Your task to perform on an android device: turn on airplane mode Image 0: 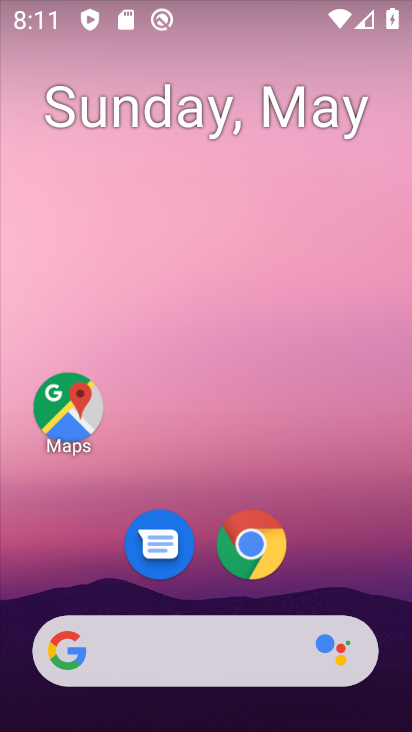
Step 0: drag from (330, 554) to (260, 14)
Your task to perform on an android device: turn on airplane mode Image 1: 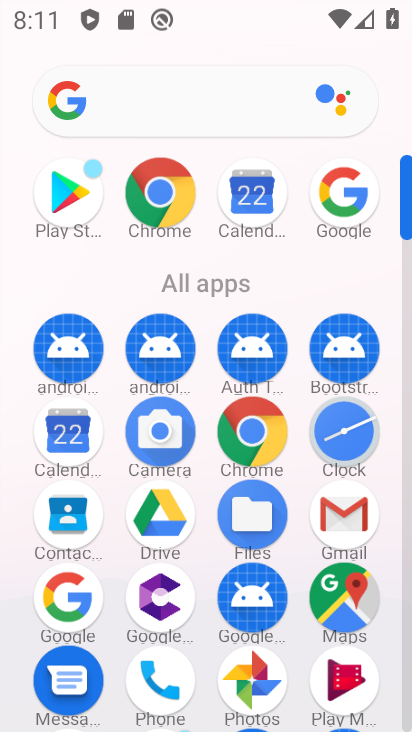
Step 1: drag from (4, 523) to (19, 176)
Your task to perform on an android device: turn on airplane mode Image 2: 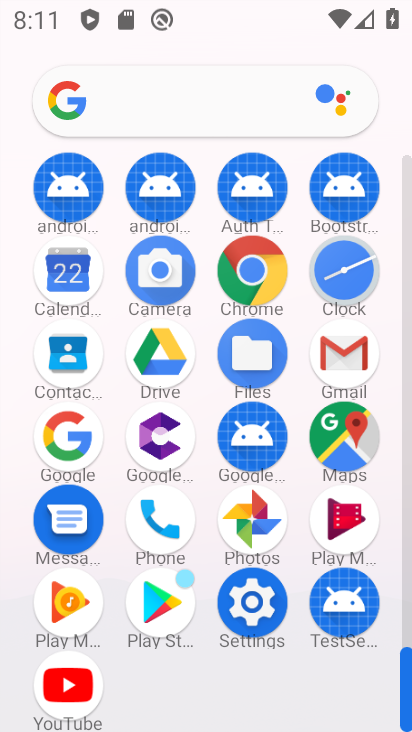
Step 2: click (250, 600)
Your task to perform on an android device: turn on airplane mode Image 3: 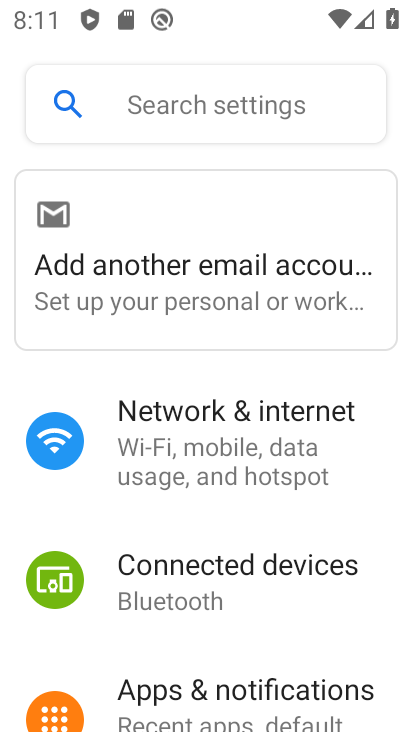
Step 3: click (239, 436)
Your task to perform on an android device: turn on airplane mode Image 4: 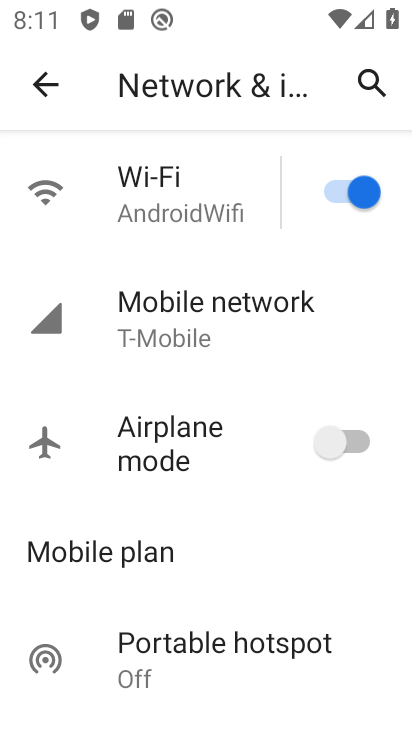
Step 4: click (336, 443)
Your task to perform on an android device: turn on airplane mode Image 5: 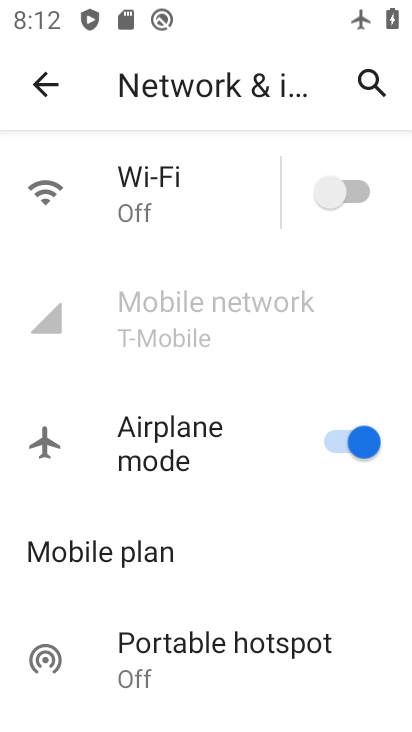
Step 5: task complete